Your task to perform on an android device: toggle show notifications on the lock screen Image 0: 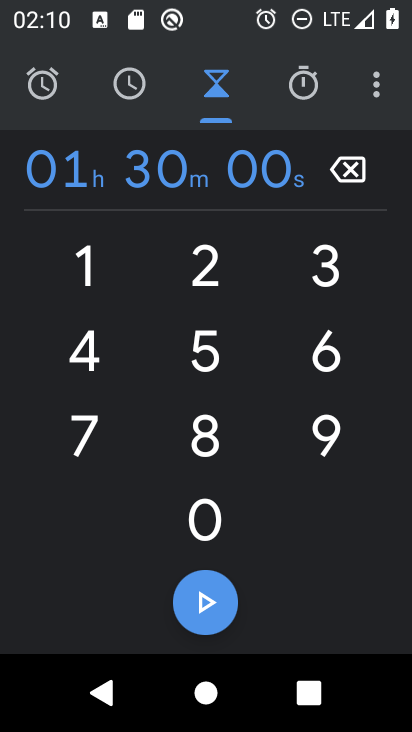
Step 0: press home button
Your task to perform on an android device: toggle show notifications on the lock screen Image 1: 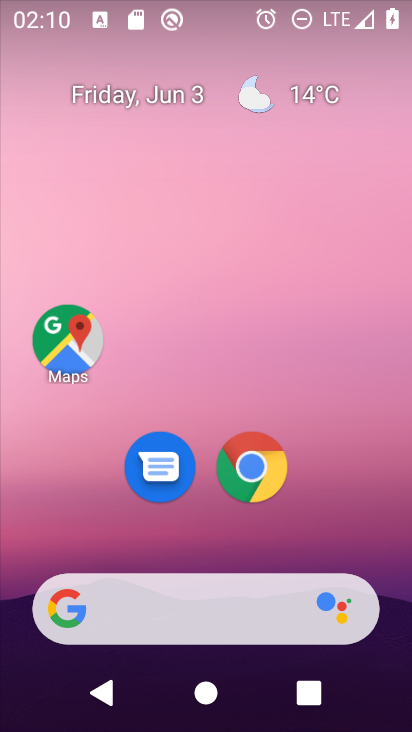
Step 1: drag from (399, 617) to (401, 23)
Your task to perform on an android device: toggle show notifications on the lock screen Image 2: 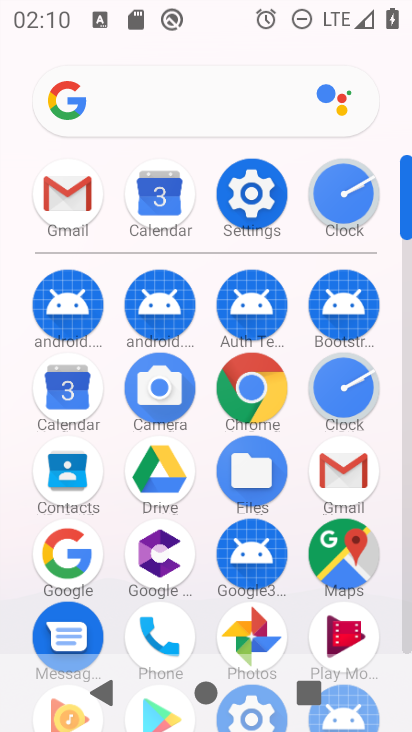
Step 2: click (407, 643)
Your task to perform on an android device: toggle show notifications on the lock screen Image 3: 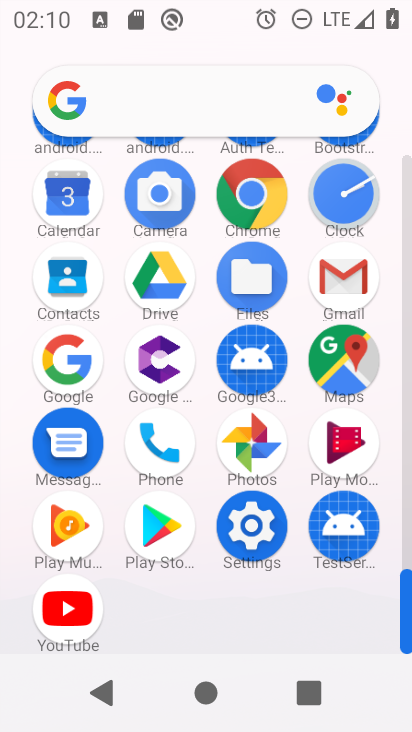
Step 3: click (249, 527)
Your task to perform on an android device: toggle show notifications on the lock screen Image 4: 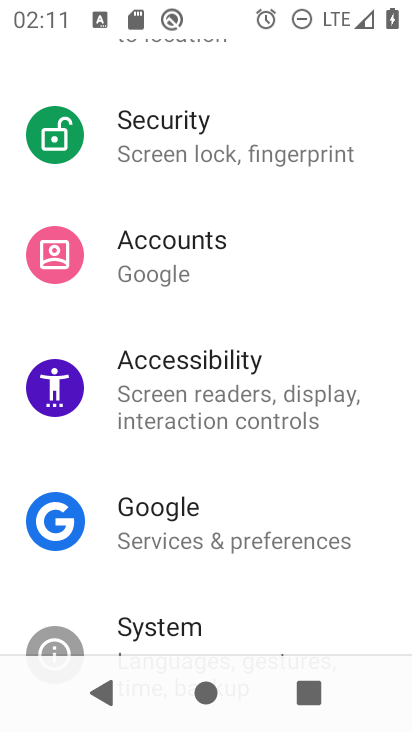
Step 4: drag from (328, 275) to (350, 502)
Your task to perform on an android device: toggle show notifications on the lock screen Image 5: 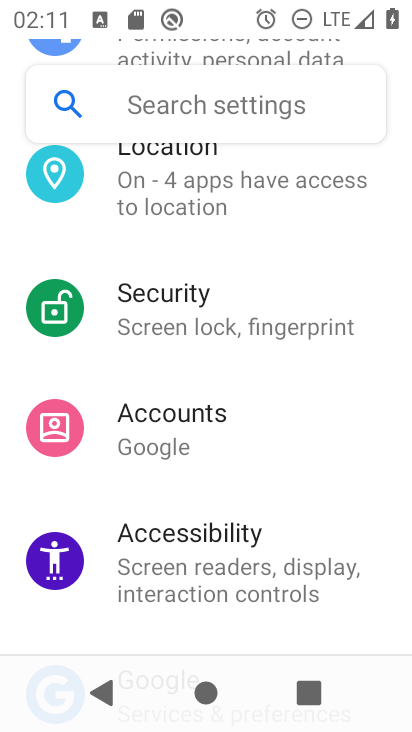
Step 5: drag from (371, 229) to (357, 524)
Your task to perform on an android device: toggle show notifications on the lock screen Image 6: 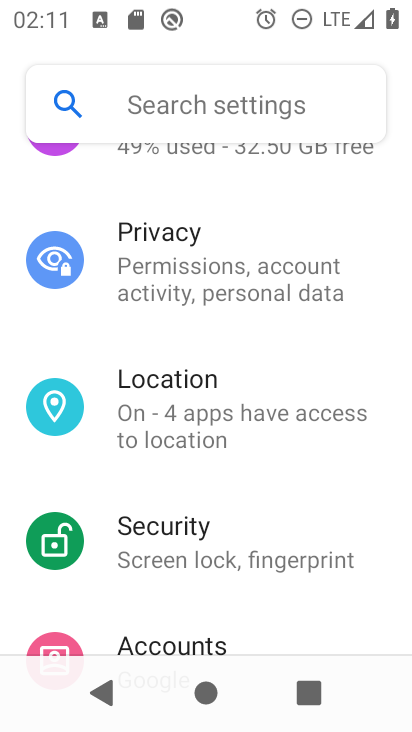
Step 6: drag from (376, 206) to (401, 495)
Your task to perform on an android device: toggle show notifications on the lock screen Image 7: 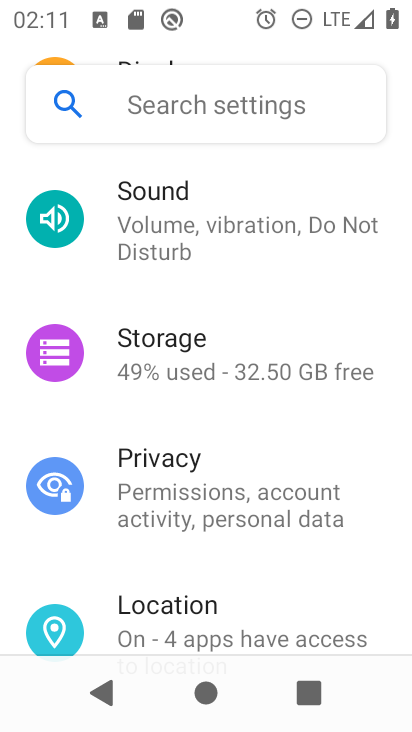
Step 7: drag from (371, 229) to (359, 560)
Your task to perform on an android device: toggle show notifications on the lock screen Image 8: 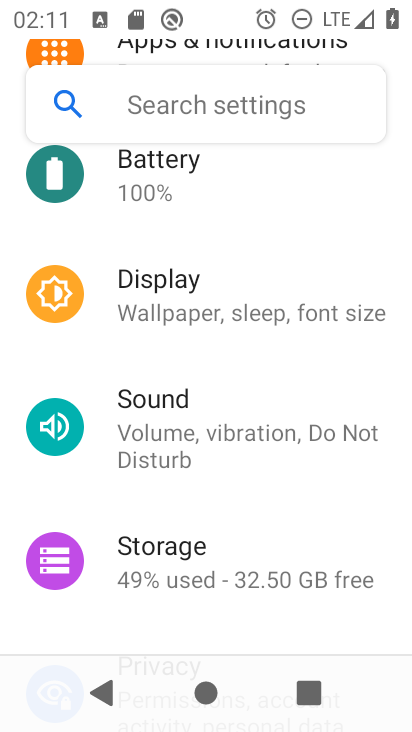
Step 8: drag from (370, 324) to (373, 550)
Your task to perform on an android device: toggle show notifications on the lock screen Image 9: 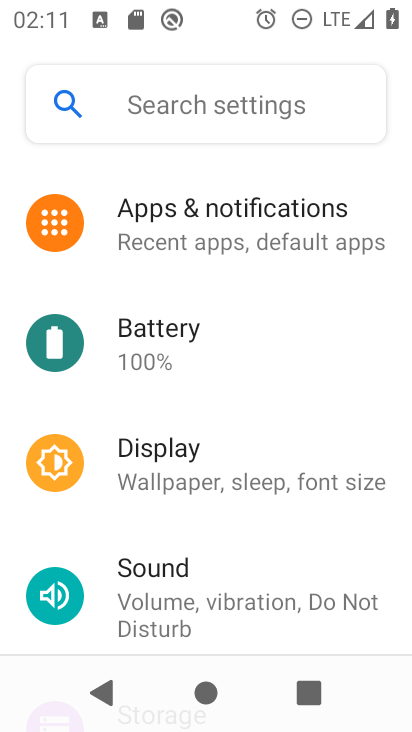
Step 9: click (159, 221)
Your task to perform on an android device: toggle show notifications on the lock screen Image 10: 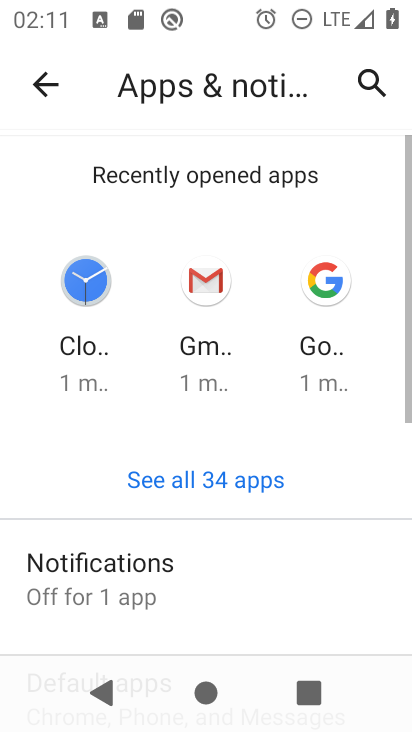
Step 10: drag from (289, 587) to (343, 230)
Your task to perform on an android device: toggle show notifications on the lock screen Image 11: 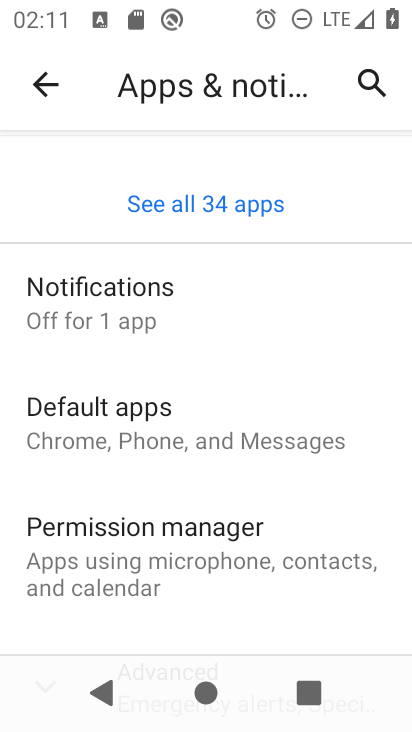
Step 11: drag from (343, 526) to (342, 450)
Your task to perform on an android device: toggle show notifications on the lock screen Image 12: 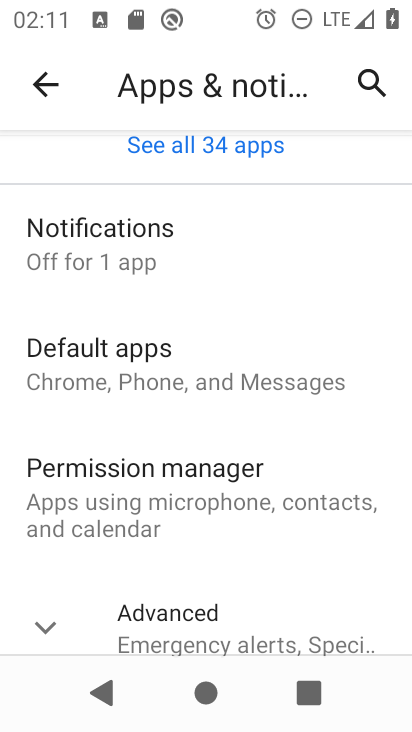
Step 12: click (76, 237)
Your task to perform on an android device: toggle show notifications on the lock screen Image 13: 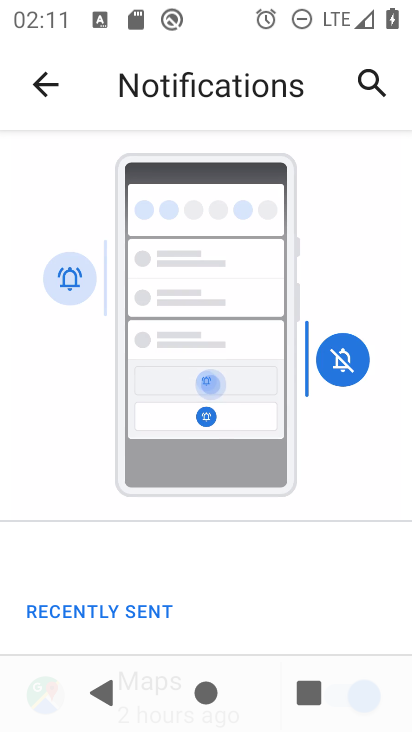
Step 13: drag from (294, 572) to (270, 180)
Your task to perform on an android device: toggle show notifications on the lock screen Image 14: 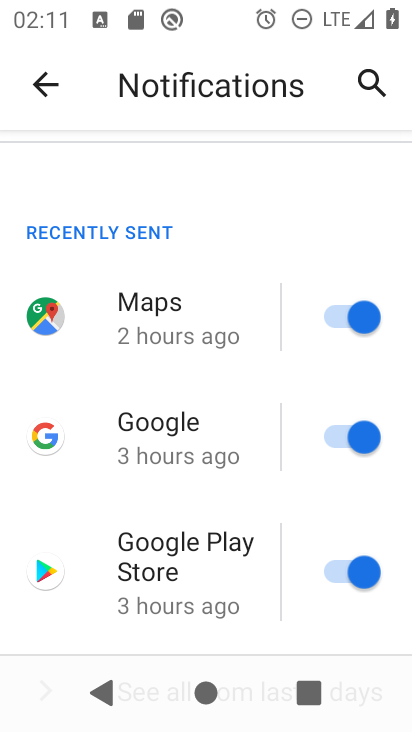
Step 14: drag from (284, 606) to (262, 73)
Your task to perform on an android device: toggle show notifications on the lock screen Image 15: 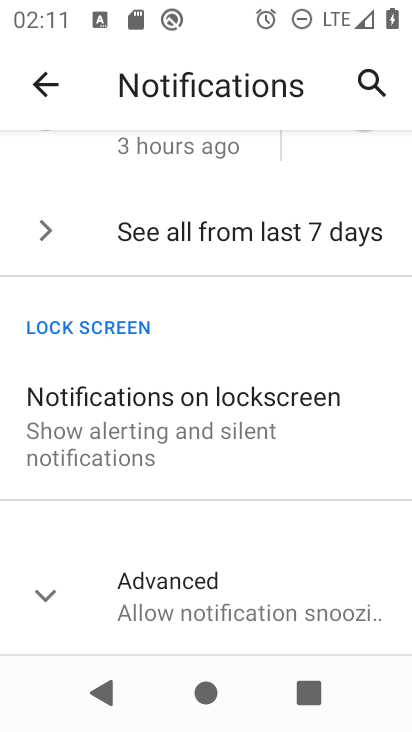
Step 15: click (143, 429)
Your task to perform on an android device: toggle show notifications on the lock screen Image 16: 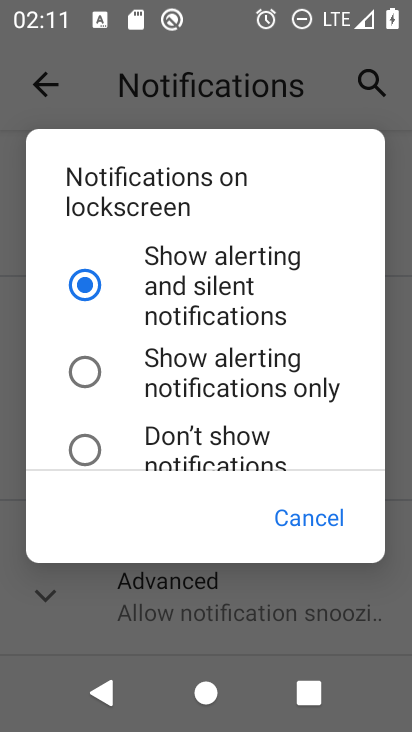
Step 16: click (83, 378)
Your task to perform on an android device: toggle show notifications on the lock screen Image 17: 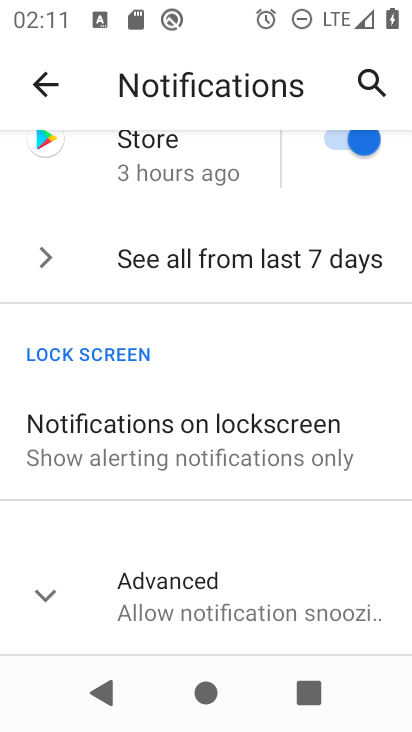
Step 17: task complete